Your task to perform on an android device: add a contact Image 0: 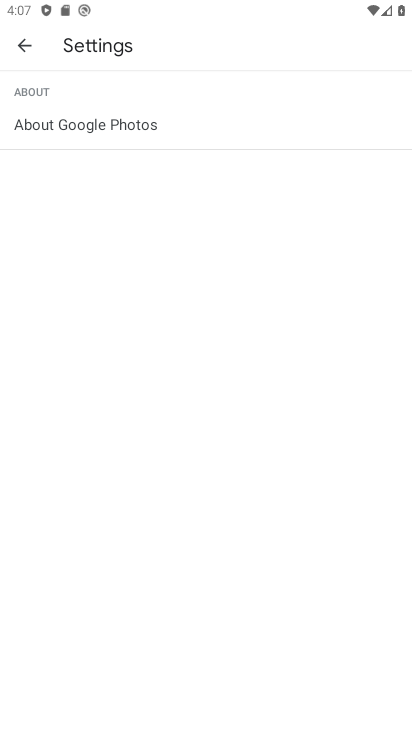
Step 0: press home button
Your task to perform on an android device: add a contact Image 1: 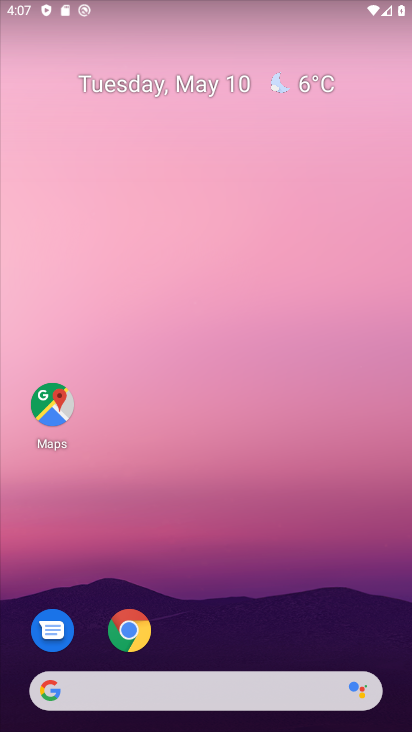
Step 1: drag from (227, 628) to (189, 139)
Your task to perform on an android device: add a contact Image 2: 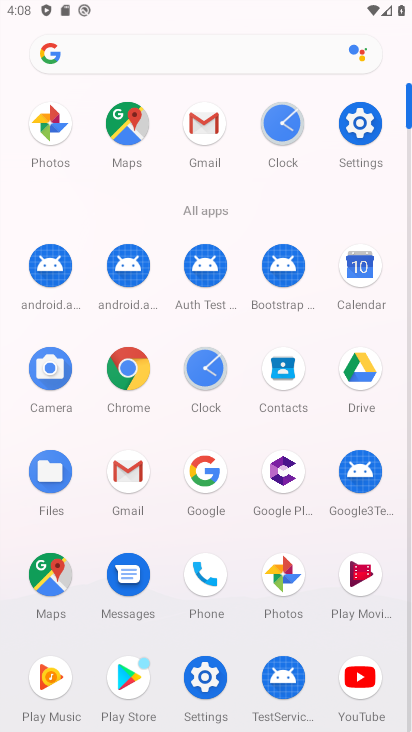
Step 2: click (283, 369)
Your task to perform on an android device: add a contact Image 3: 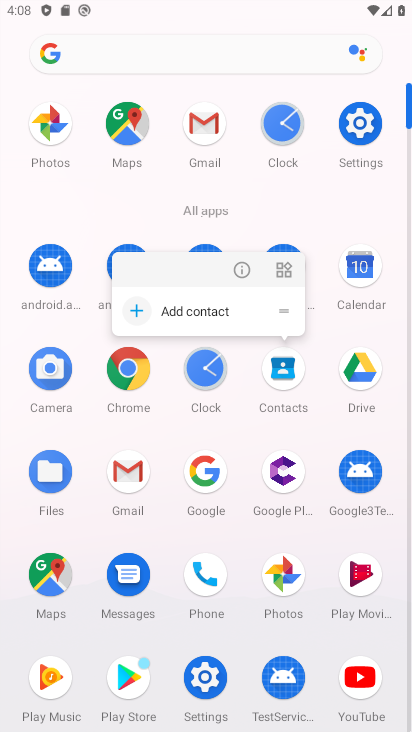
Step 3: click (283, 369)
Your task to perform on an android device: add a contact Image 4: 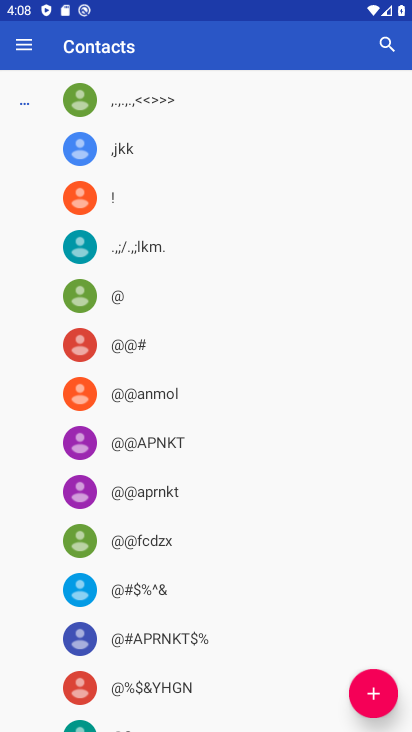
Step 4: click (372, 696)
Your task to perform on an android device: add a contact Image 5: 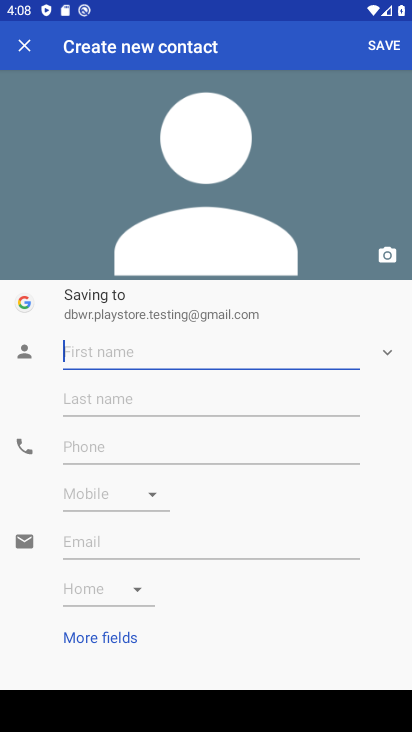
Step 5: type "nft"
Your task to perform on an android device: add a contact Image 6: 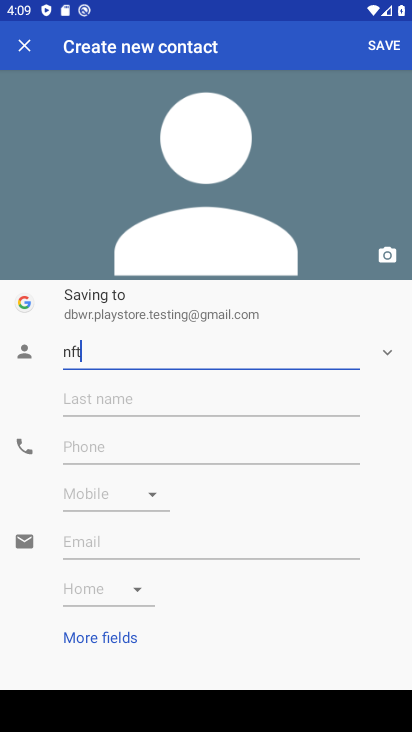
Step 6: click (394, 42)
Your task to perform on an android device: add a contact Image 7: 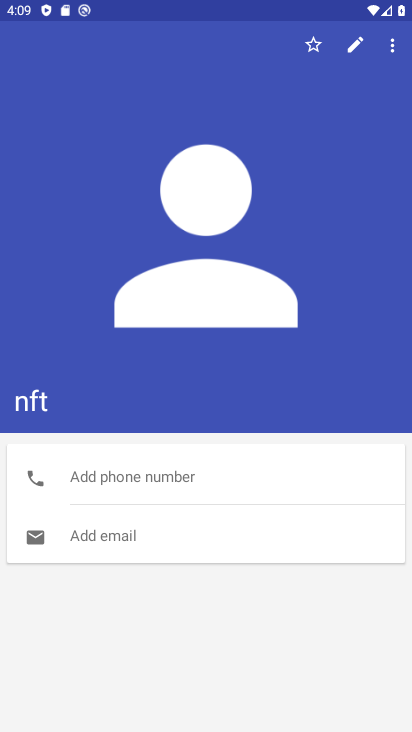
Step 7: task complete